Your task to perform on an android device: open a new tab in the chrome app Image 0: 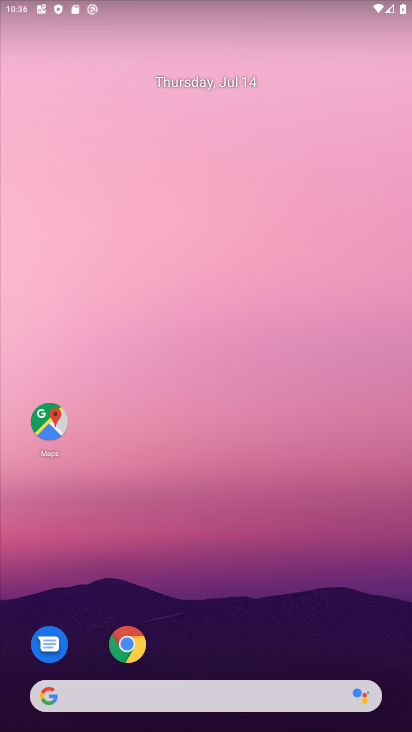
Step 0: click (135, 640)
Your task to perform on an android device: open a new tab in the chrome app Image 1: 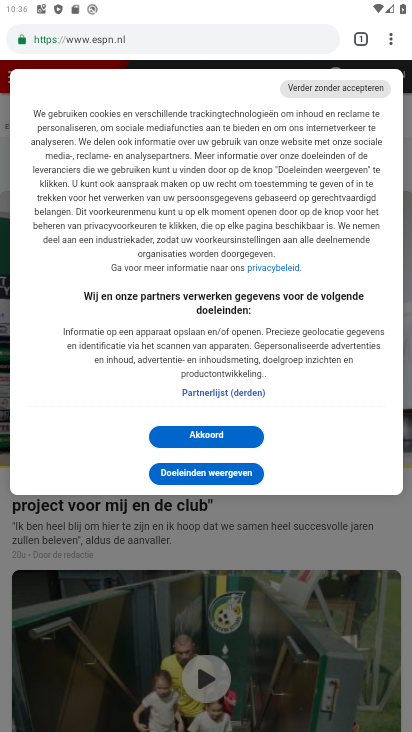
Step 1: task complete